Your task to perform on an android device: turn off location Image 0: 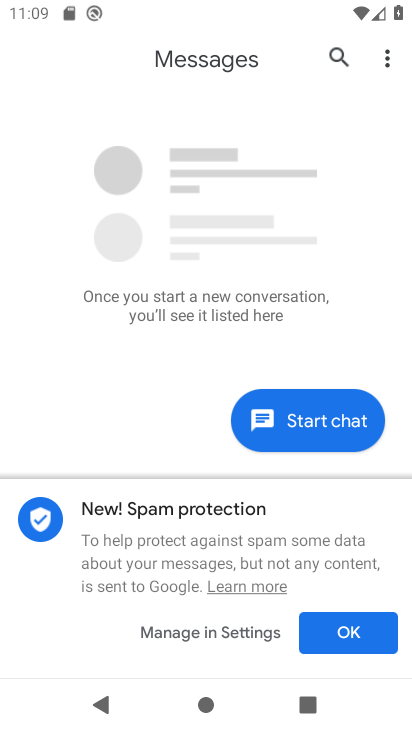
Step 0: press home button
Your task to perform on an android device: turn off location Image 1: 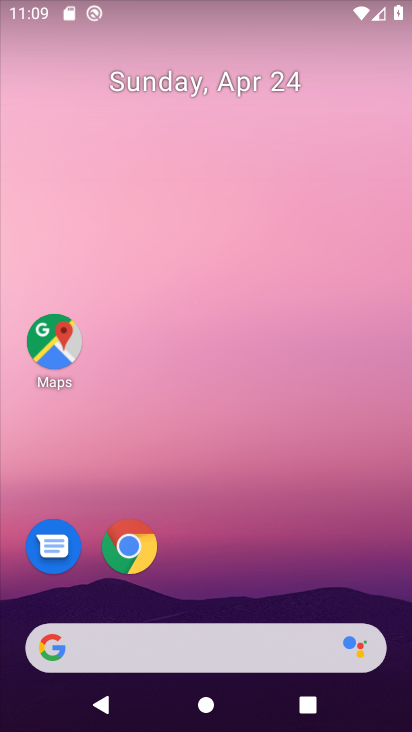
Step 1: drag from (213, 482) to (278, 33)
Your task to perform on an android device: turn off location Image 2: 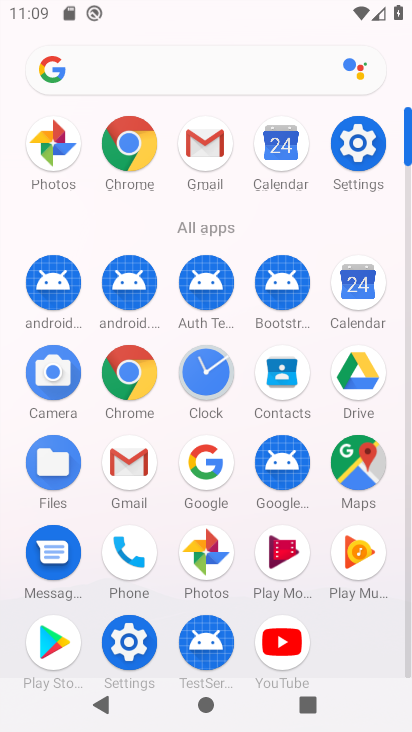
Step 2: click (364, 157)
Your task to perform on an android device: turn off location Image 3: 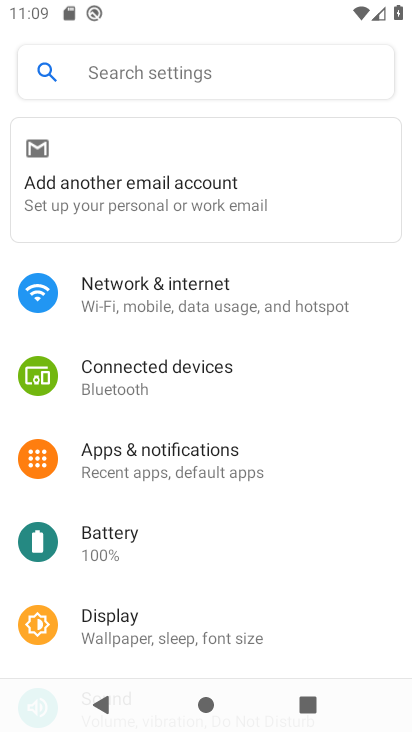
Step 3: drag from (194, 480) to (210, 187)
Your task to perform on an android device: turn off location Image 4: 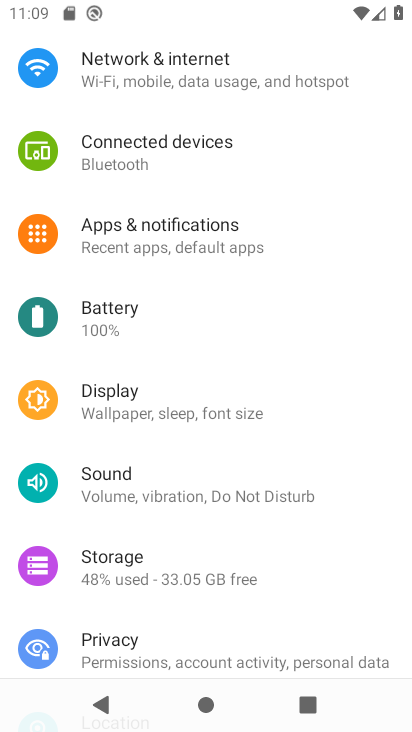
Step 4: drag from (178, 644) to (244, 236)
Your task to perform on an android device: turn off location Image 5: 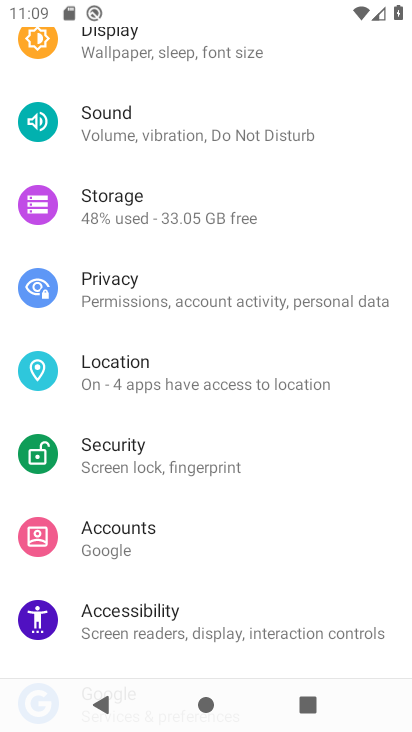
Step 5: click (211, 383)
Your task to perform on an android device: turn off location Image 6: 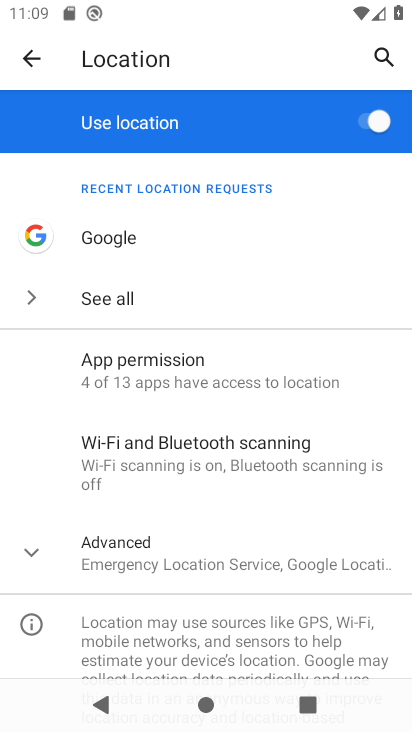
Step 6: click (377, 117)
Your task to perform on an android device: turn off location Image 7: 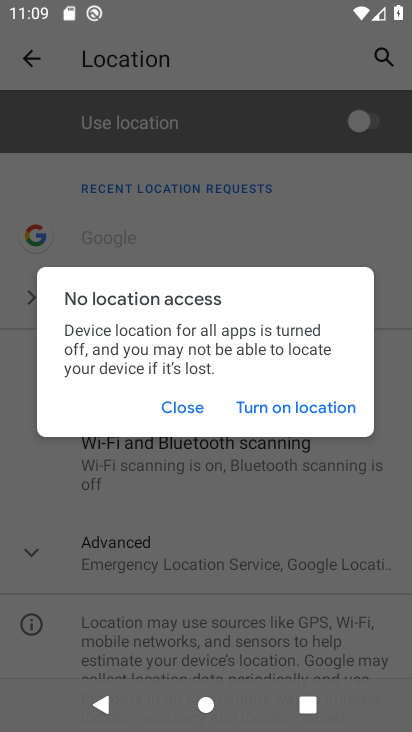
Step 7: task complete